Your task to perform on an android device: Search for seafood restaurants on Google Maps Image 0: 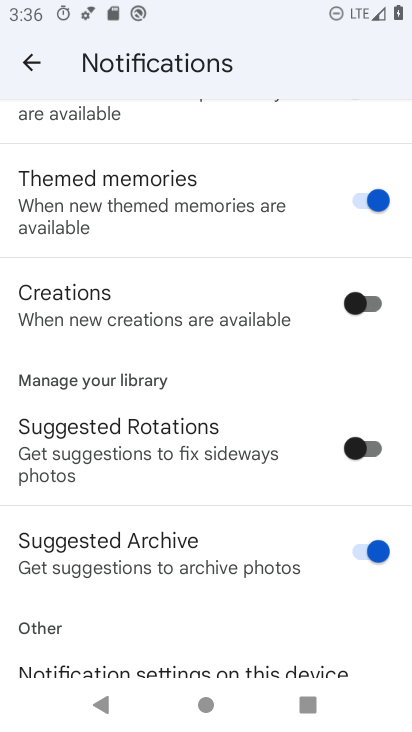
Step 0: press home button
Your task to perform on an android device: Search for seafood restaurants on Google Maps Image 1: 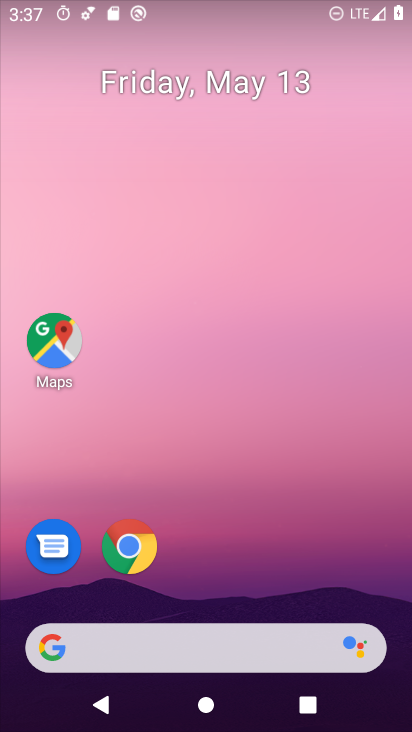
Step 1: click (45, 344)
Your task to perform on an android device: Search for seafood restaurants on Google Maps Image 2: 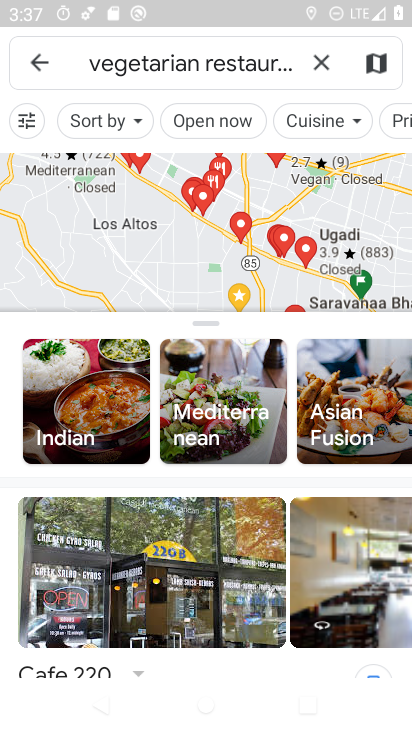
Step 2: click (318, 62)
Your task to perform on an android device: Search for seafood restaurants on Google Maps Image 3: 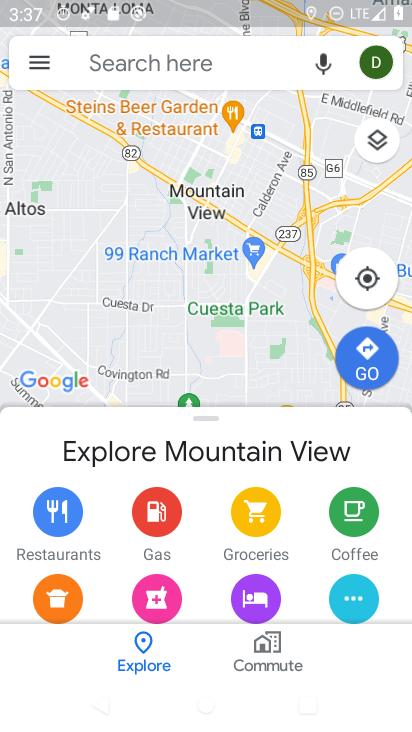
Step 3: click (234, 66)
Your task to perform on an android device: Search for seafood restaurants on Google Maps Image 4: 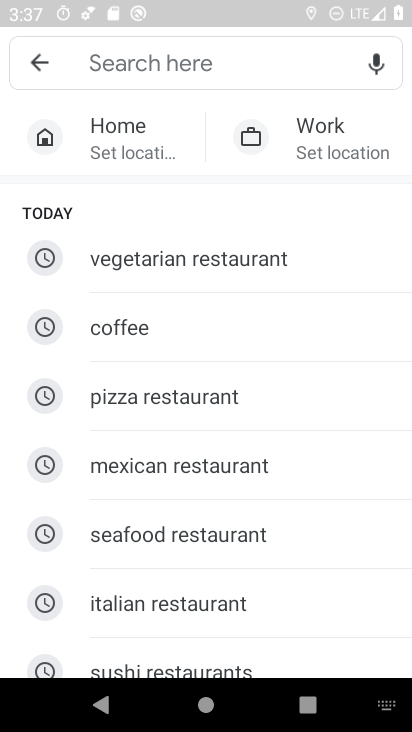
Step 4: drag from (179, 523) to (218, 344)
Your task to perform on an android device: Search for seafood restaurants on Google Maps Image 5: 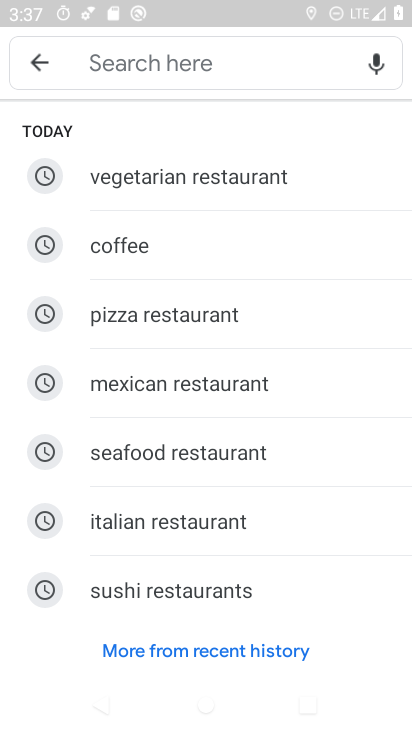
Step 5: click (234, 462)
Your task to perform on an android device: Search for seafood restaurants on Google Maps Image 6: 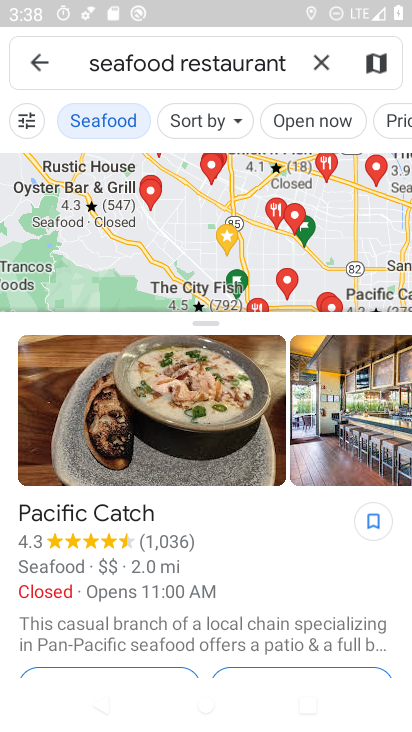
Step 6: task complete